Your task to perform on an android device: Go to Amazon Image 0: 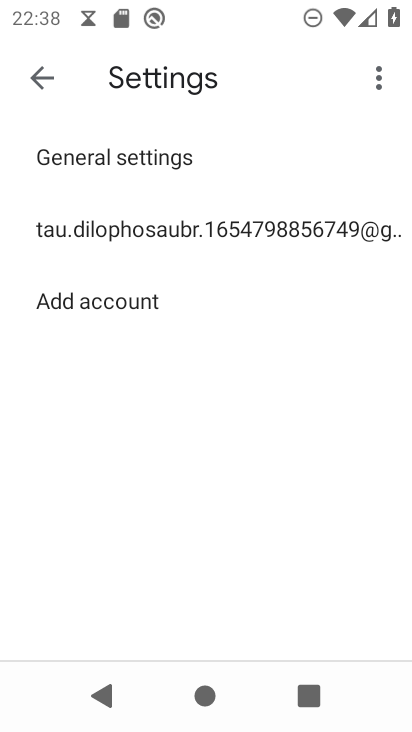
Step 0: press home button
Your task to perform on an android device: Go to Amazon Image 1: 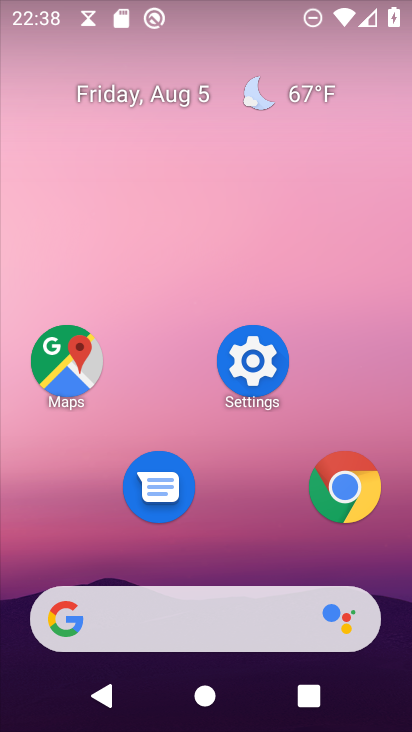
Step 1: click (342, 487)
Your task to perform on an android device: Go to Amazon Image 2: 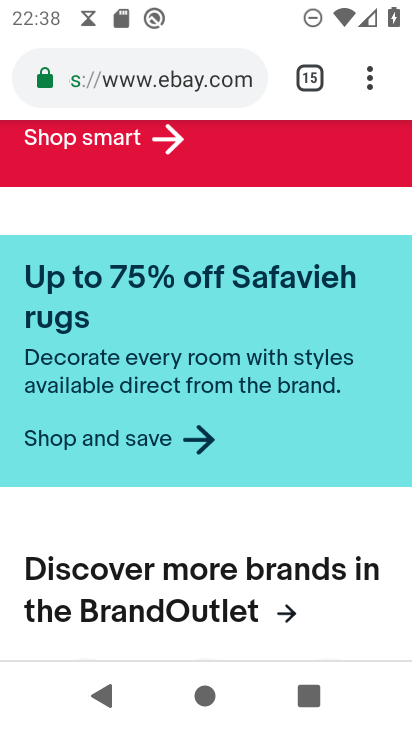
Step 2: drag from (370, 81) to (178, 165)
Your task to perform on an android device: Go to Amazon Image 3: 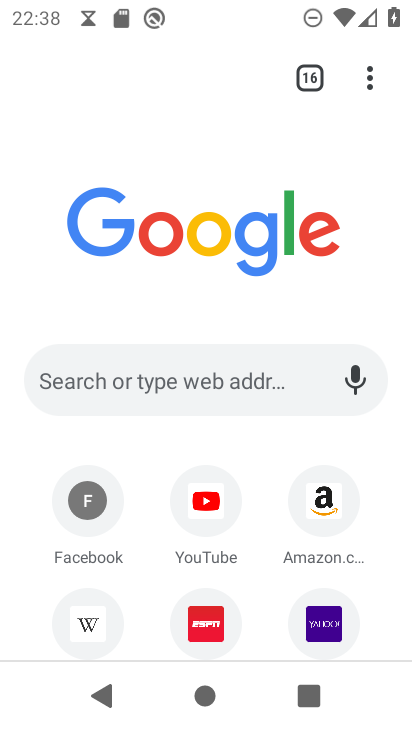
Step 3: click (320, 493)
Your task to perform on an android device: Go to Amazon Image 4: 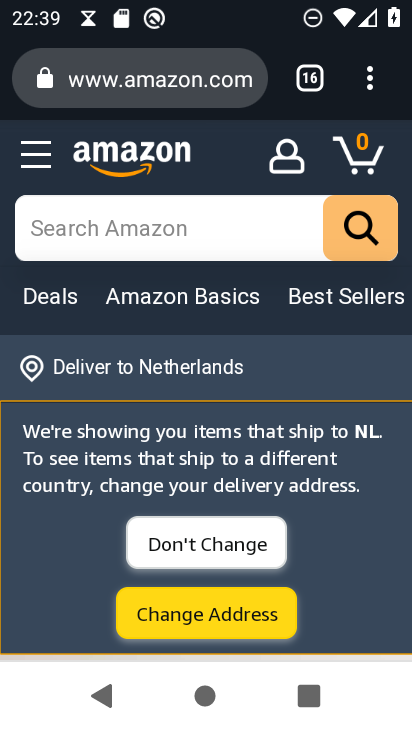
Step 4: task complete